Your task to perform on an android device: Open calendar and show me the fourth week of next month Image 0: 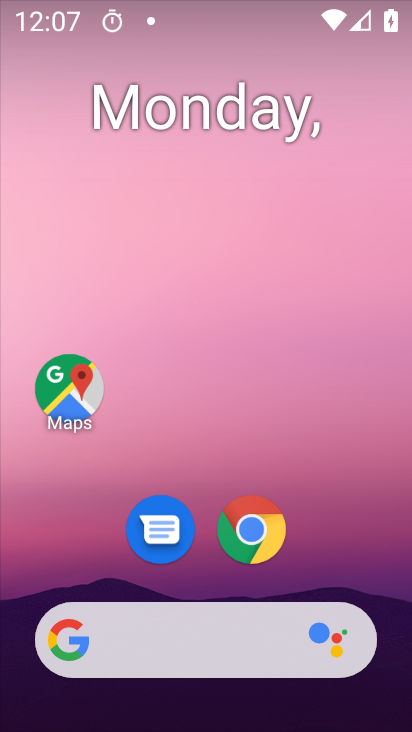
Step 0: click (233, 160)
Your task to perform on an android device: Open calendar and show me the fourth week of next month Image 1: 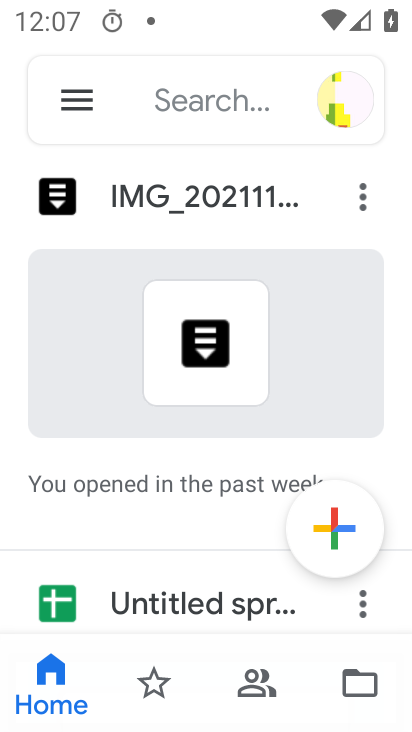
Step 1: press home button
Your task to perform on an android device: Open calendar and show me the fourth week of next month Image 2: 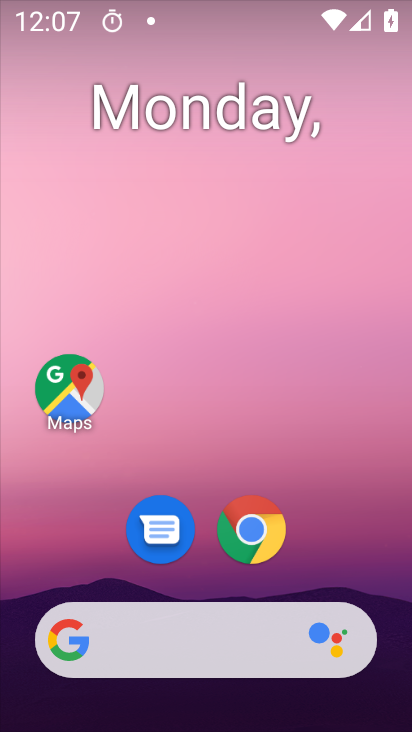
Step 2: drag from (223, 633) to (237, 121)
Your task to perform on an android device: Open calendar and show me the fourth week of next month Image 3: 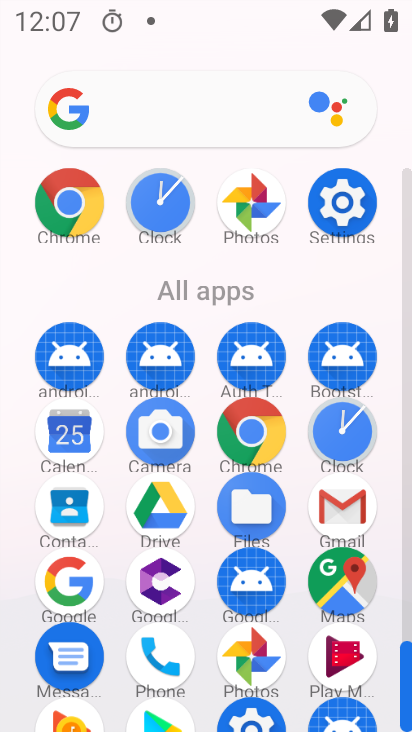
Step 3: click (66, 445)
Your task to perform on an android device: Open calendar and show me the fourth week of next month Image 4: 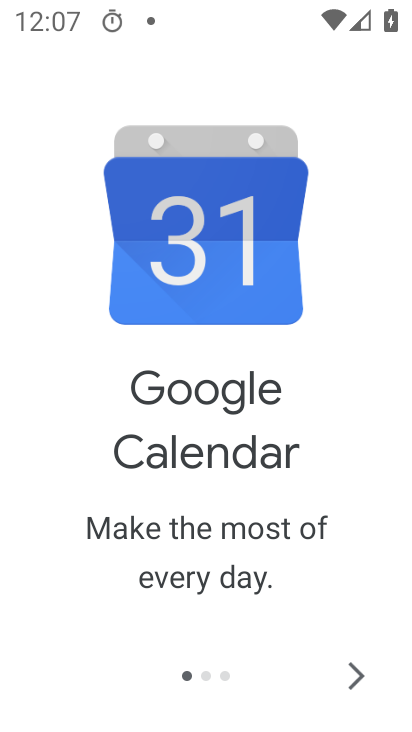
Step 4: click (360, 652)
Your task to perform on an android device: Open calendar and show me the fourth week of next month Image 5: 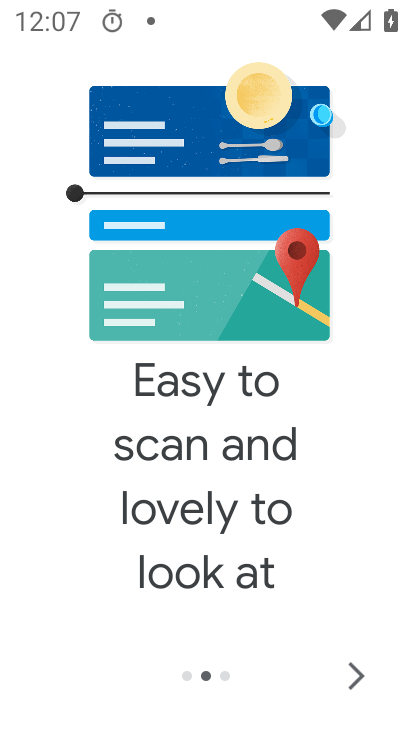
Step 5: click (361, 680)
Your task to perform on an android device: Open calendar and show me the fourth week of next month Image 6: 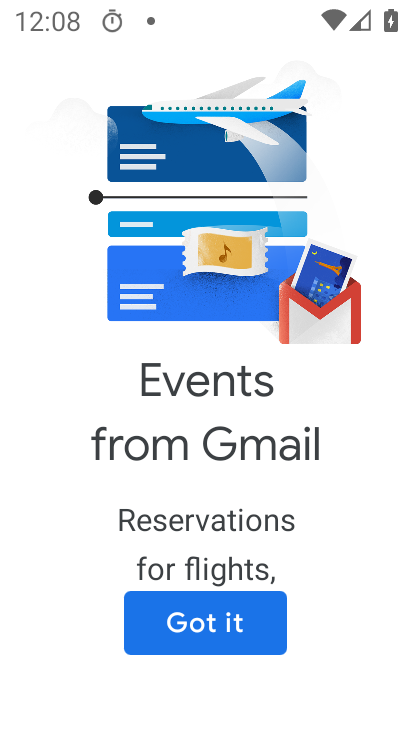
Step 6: click (204, 653)
Your task to perform on an android device: Open calendar and show me the fourth week of next month Image 7: 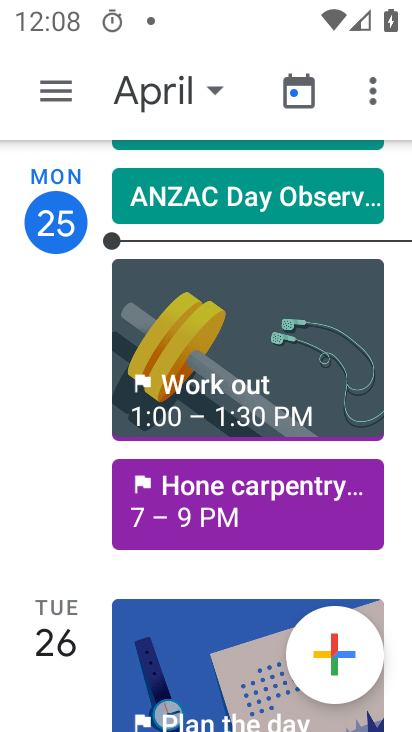
Step 7: click (54, 101)
Your task to perform on an android device: Open calendar and show me the fourth week of next month Image 8: 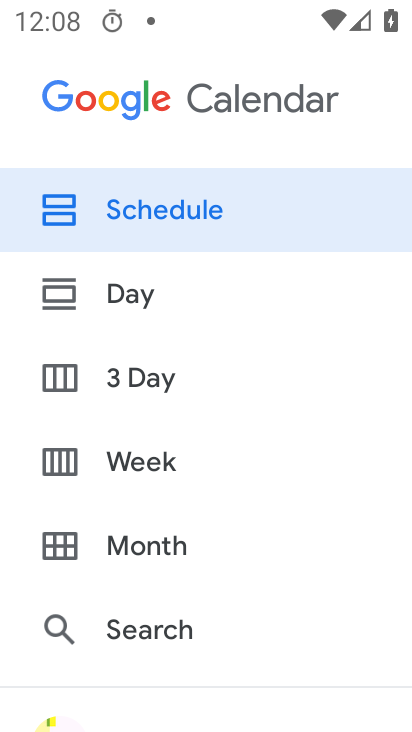
Step 8: click (110, 543)
Your task to perform on an android device: Open calendar and show me the fourth week of next month Image 9: 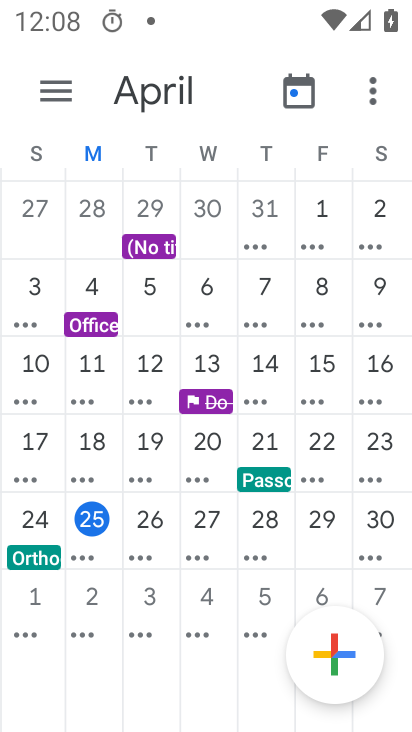
Step 9: task complete